Your task to perform on an android device: turn off javascript in the chrome app Image 0: 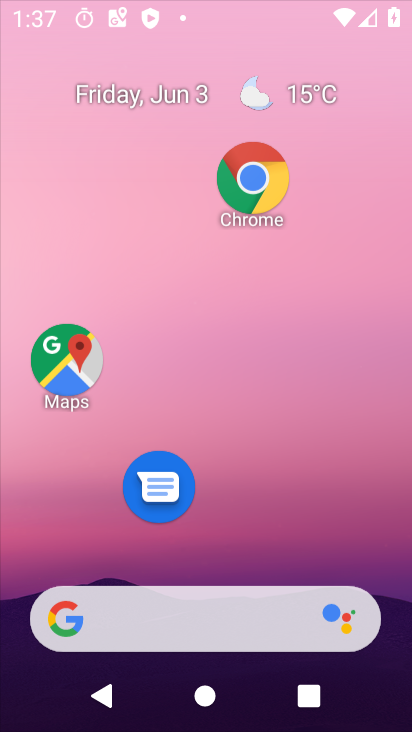
Step 0: press home button
Your task to perform on an android device: turn off javascript in the chrome app Image 1: 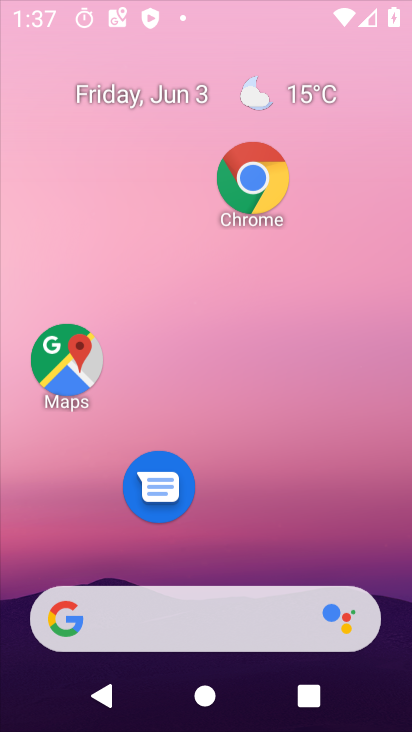
Step 1: click (244, 19)
Your task to perform on an android device: turn off javascript in the chrome app Image 2: 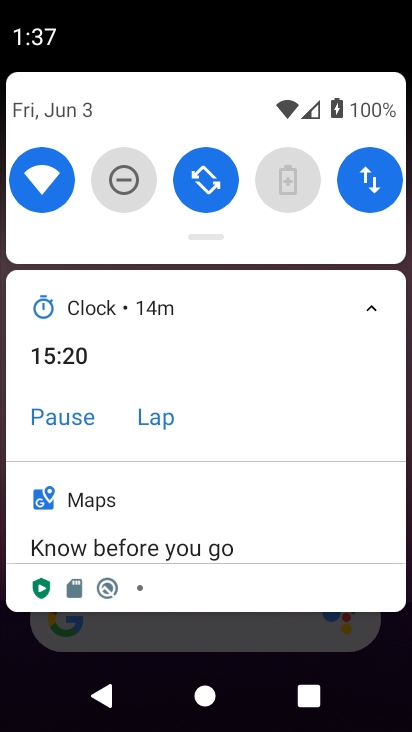
Step 2: press home button
Your task to perform on an android device: turn off javascript in the chrome app Image 3: 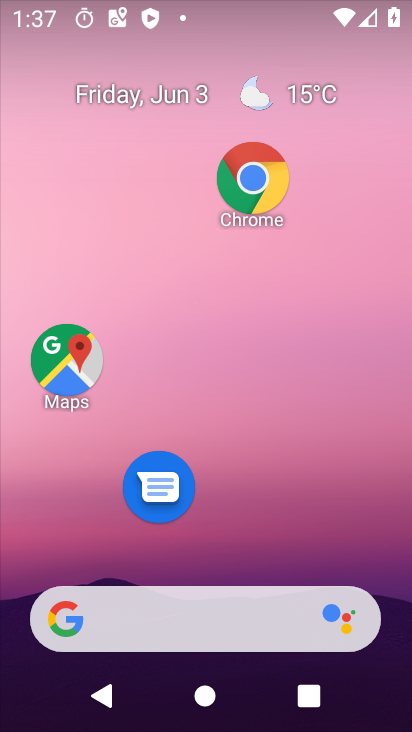
Step 3: click (252, 175)
Your task to perform on an android device: turn off javascript in the chrome app Image 4: 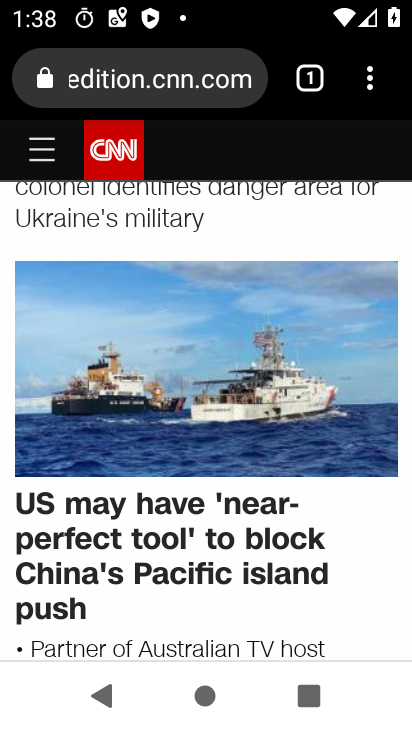
Step 4: click (367, 72)
Your task to perform on an android device: turn off javascript in the chrome app Image 5: 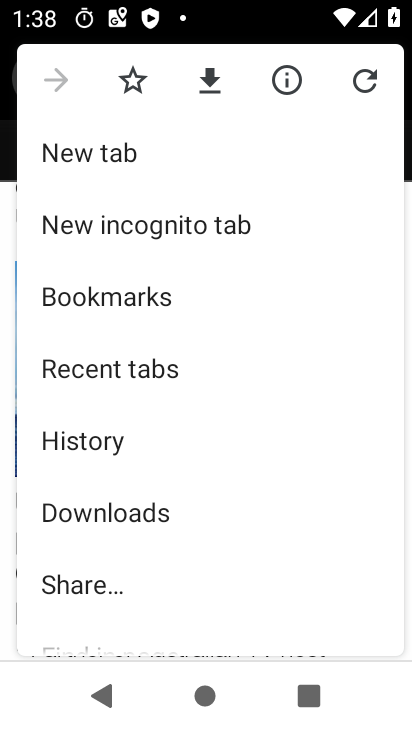
Step 5: drag from (216, 262) to (245, 98)
Your task to perform on an android device: turn off javascript in the chrome app Image 6: 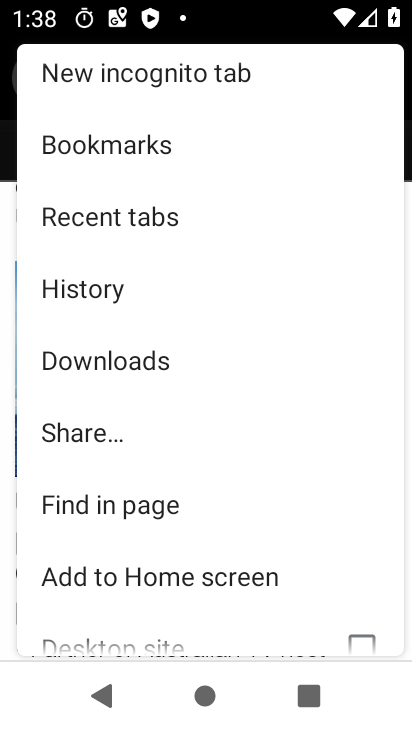
Step 6: drag from (192, 585) to (211, 171)
Your task to perform on an android device: turn off javascript in the chrome app Image 7: 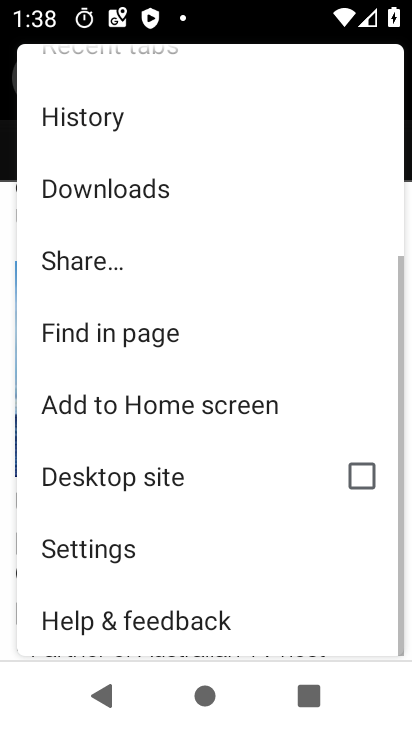
Step 7: click (158, 551)
Your task to perform on an android device: turn off javascript in the chrome app Image 8: 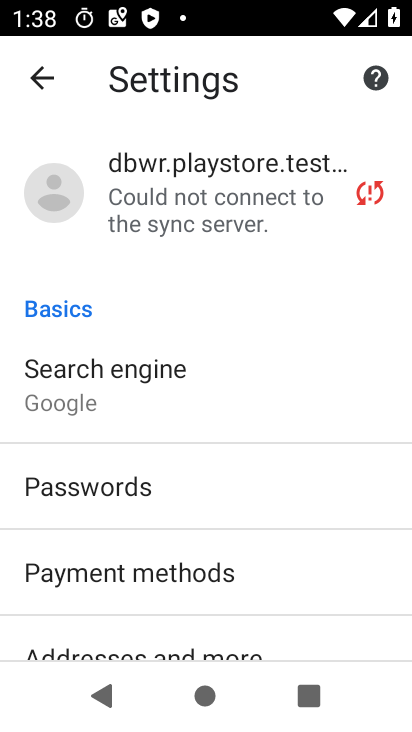
Step 8: drag from (264, 607) to (264, 196)
Your task to perform on an android device: turn off javascript in the chrome app Image 9: 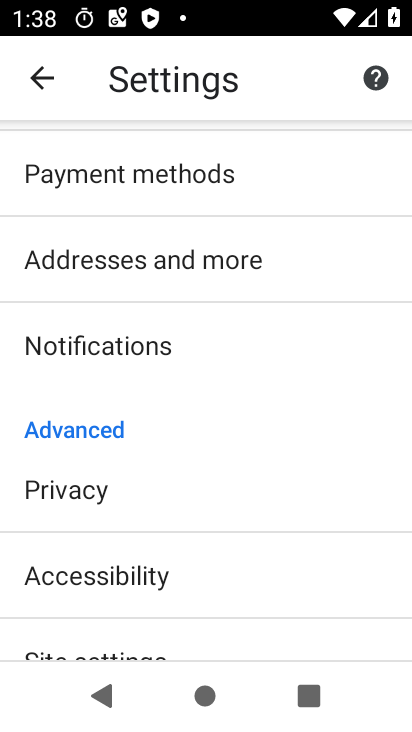
Step 9: drag from (199, 606) to (211, 114)
Your task to perform on an android device: turn off javascript in the chrome app Image 10: 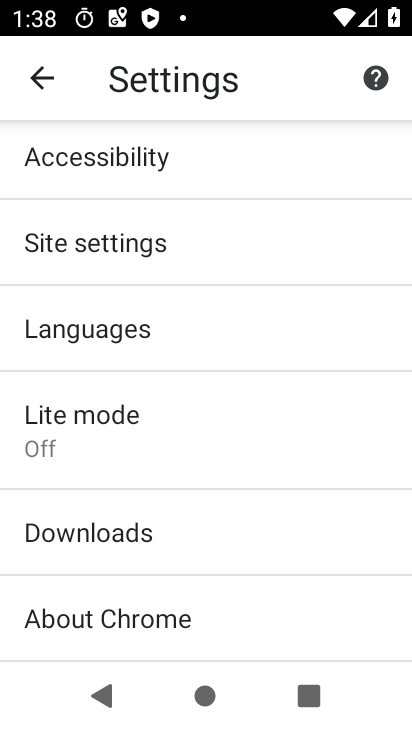
Step 10: click (180, 242)
Your task to perform on an android device: turn off javascript in the chrome app Image 11: 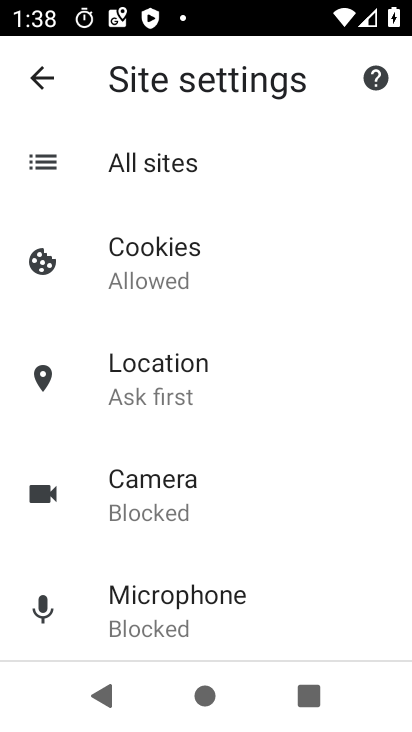
Step 11: drag from (256, 303) to (256, 187)
Your task to perform on an android device: turn off javascript in the chrome app Image 12: 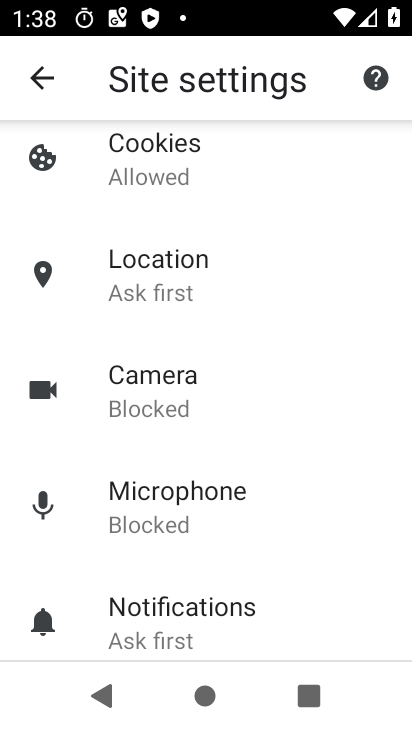
Step 12: drag from (237, 576) to (250, 126)
Your task to perform on an android device: turn off javascript in the chrome app Image 13: 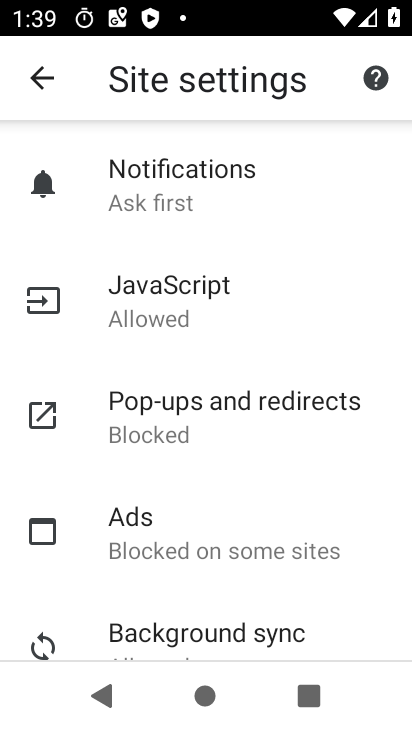
Step 13: click (207, 286)
Your task to perform on an android device: turn off javascript in the chrome app Image 14: 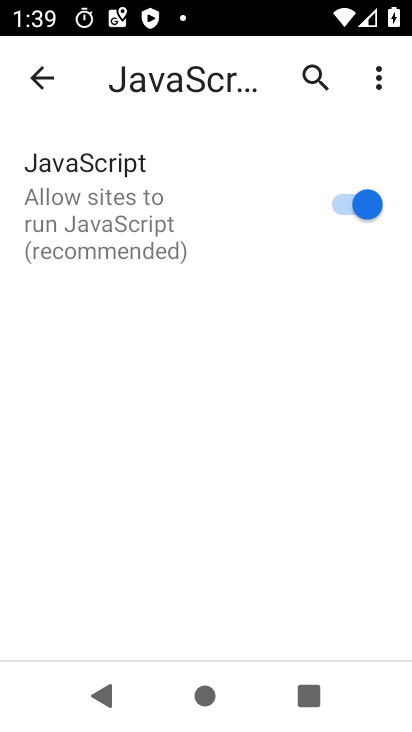
Step 14: click (362, 207)
Your task to perform on an android device: turn off javascript in the chrome app Image 15: 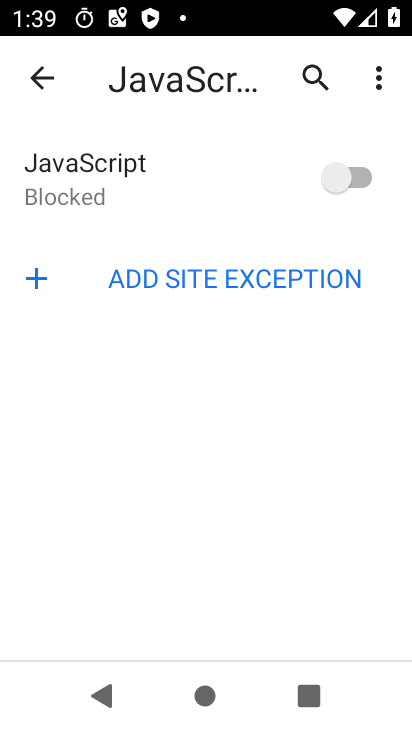
Step 15: task complete